Your task to perform on an android device: turn off javascript in the chrome app Image 0: 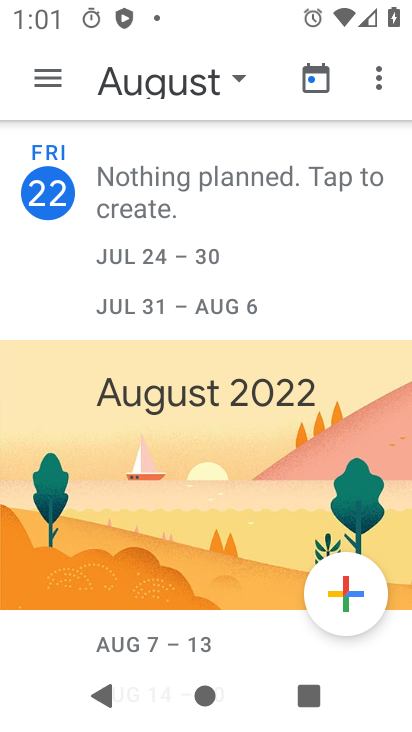
Step 0: press home button
Your task to perform on an android device: turn off javascript in the chrome app Image 1: 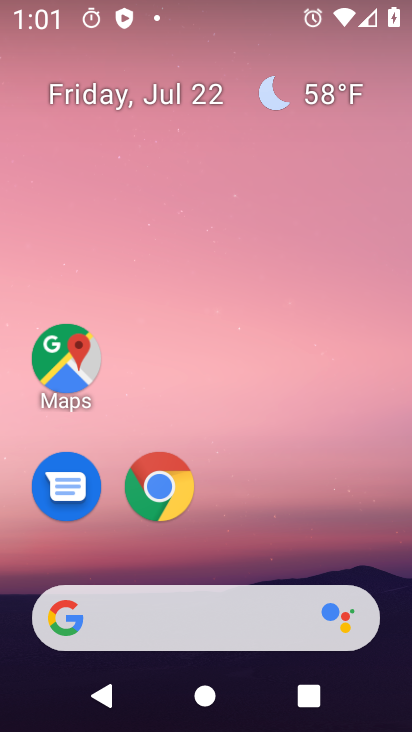
Step 1: drag from (353, 491) to (389, 196)
Your task to perform on an android device: turn off javascript in the chrome app Image 2: 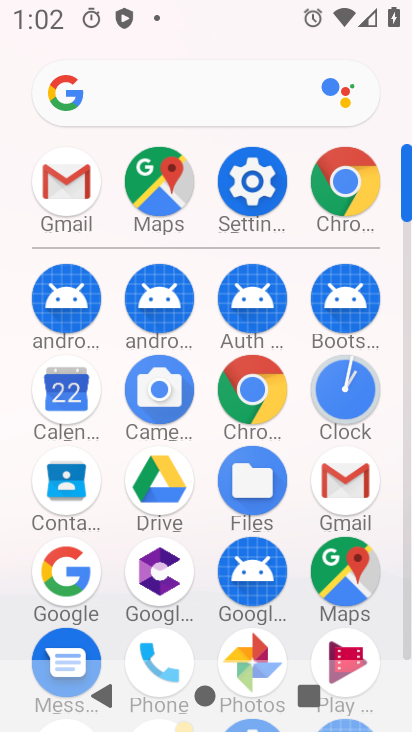
Step 2: click (394, 191)
Your task to perform on an android device: turn off javascript in the chrome app Image 3: 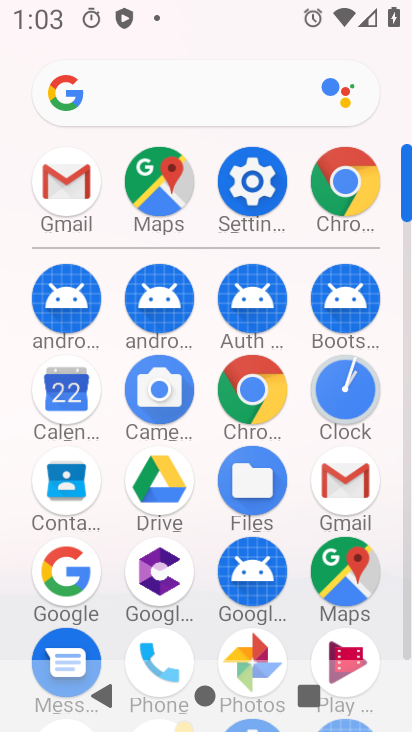
Step 3: click (244, 384)
Your task to perform on an android device: turn off javascript in the chrome app Image 4: 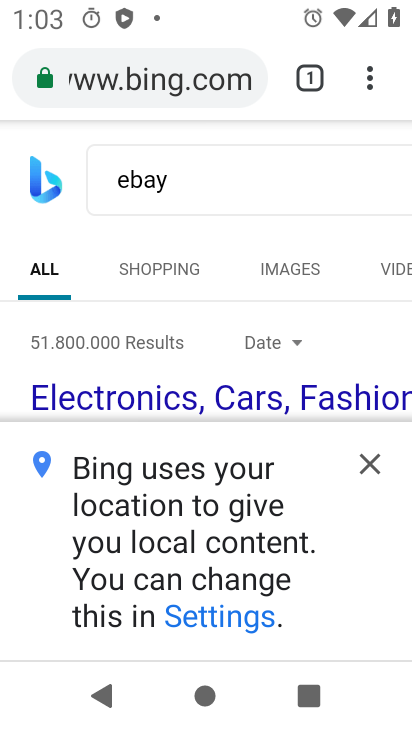
Step 4: click (369, 83)
Your task to perform on an android device: turn off javascript in the chrome app Image 5: 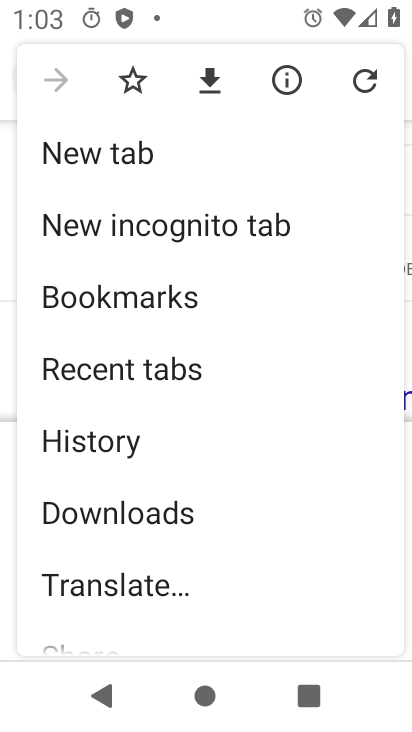
Step 5: drag from (324, 366) to (314, 278)
Your task to perform on an android device: turn off javascript in the chrome app Image 6: 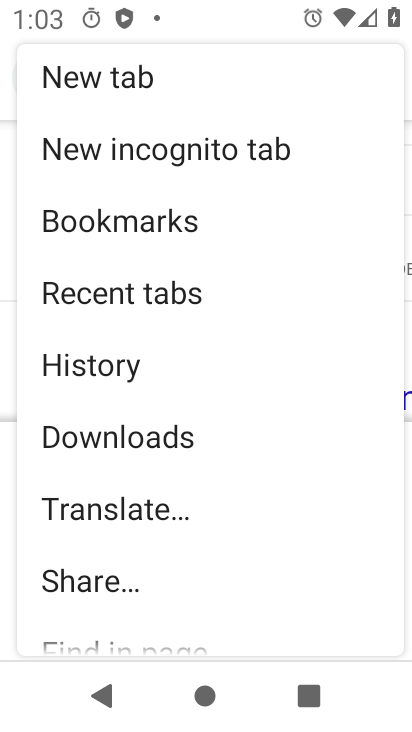
Step 6: drag from (282, 494) to (278, 359)
Your task to perform on an android device: turn off javascript in the chrome app Image 7: 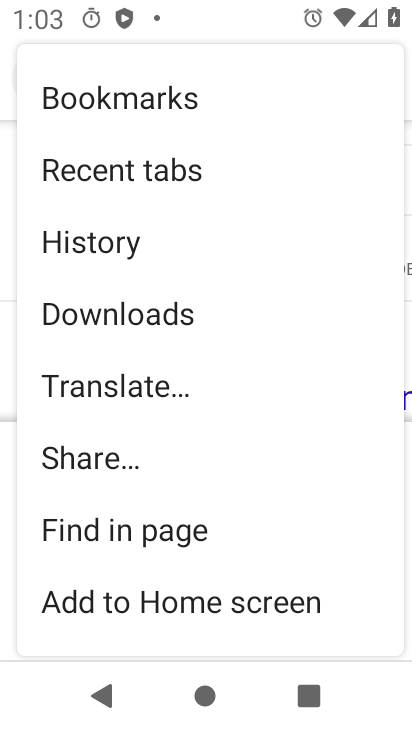
Step 7: drag from (275, 522) to (275, 363)
Your task to perform on an android device: turn off javascript in the chrome app Image 8: 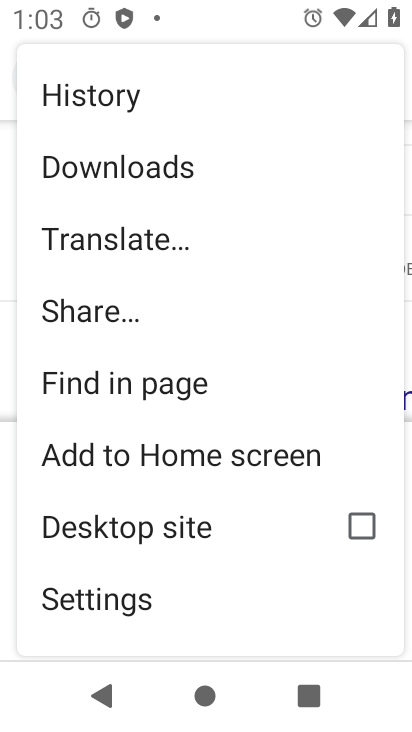
Step 8: click (244, 603)
Your task to perform on an android device: turn off javascript in the chrome app Image 9: 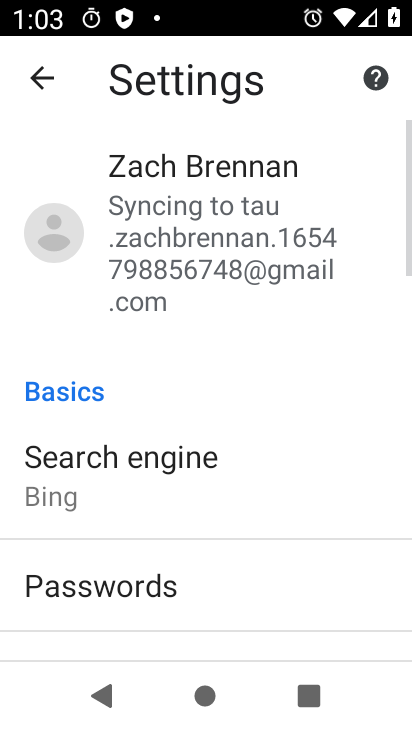
Step 9: drag from (246, 601) to (263, 509)
Your task to perform on an android device: turn off javascript in the chrome app Image 10: 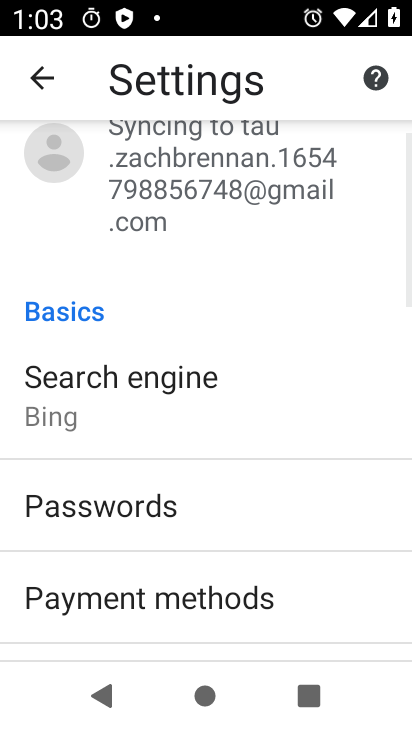
Step 10: drag from (257, 597) to (261, 465)
Your task to perform on an android device: turn off javascript in the chrome app Image 11: 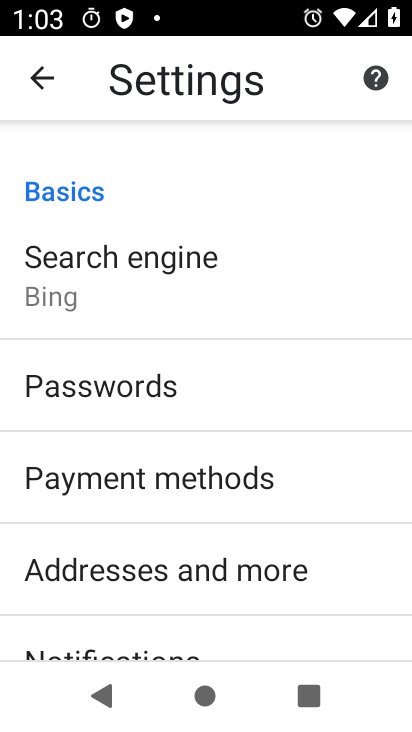
Step 11: drag from (252, 600) to (255, 476)
Your task to perform on an android device: turn off javascript in the chrome app Image 12: 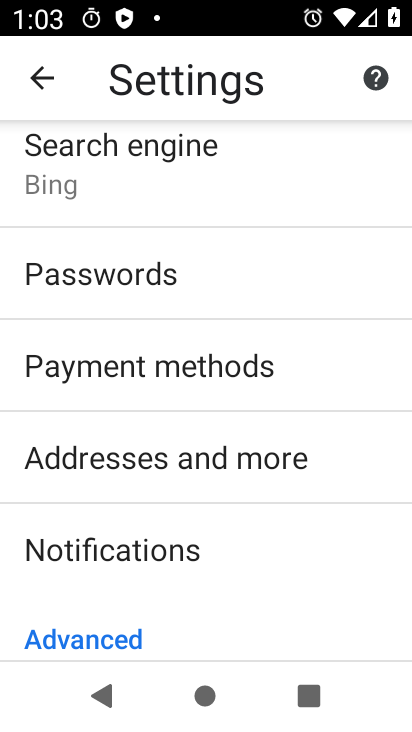
Step 12: drag from (261, 595) to (260, 486)
Your task to perform on an android device: turn off javascript in the chrome app Image 13: 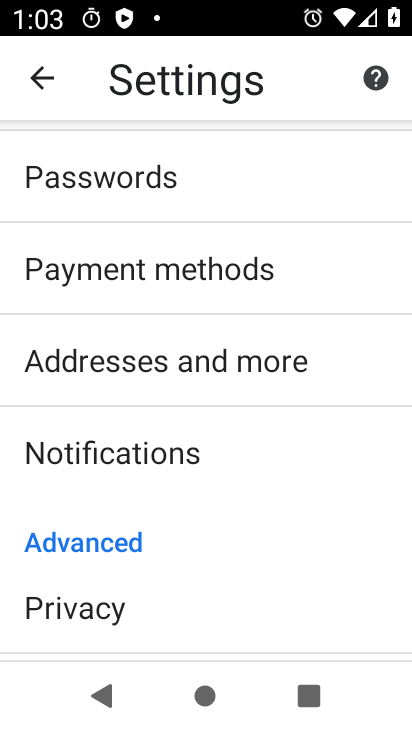
Step 13: drag from (231, 615) to (231, 484)
Your task to perform on an android device: turn off javascript in the chrome app Image 14: 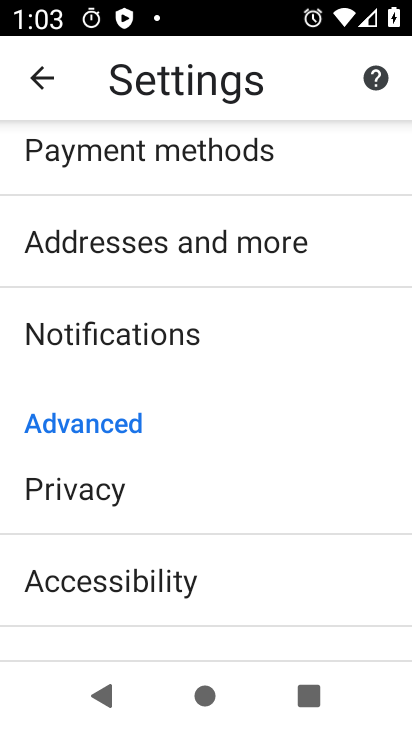
Step 14: drag from (228, 593) to (228, 445)
Your task to perform on an android device: turn off javascript in the chrome app Image 15: 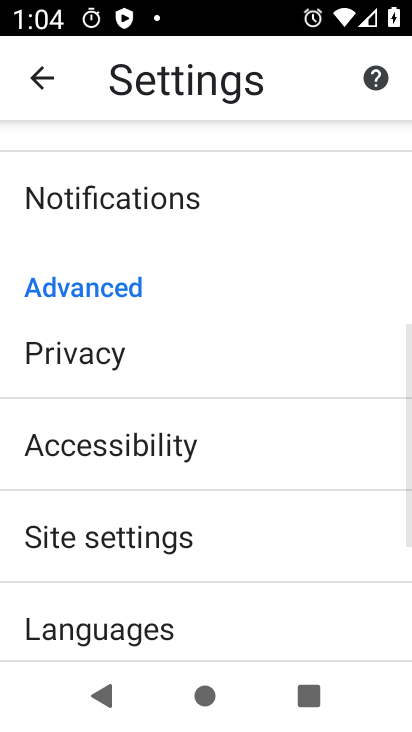
Step 15: click (219, 555)
Your task to perform on an android device: turn off javascript in the chrome app Image 16: 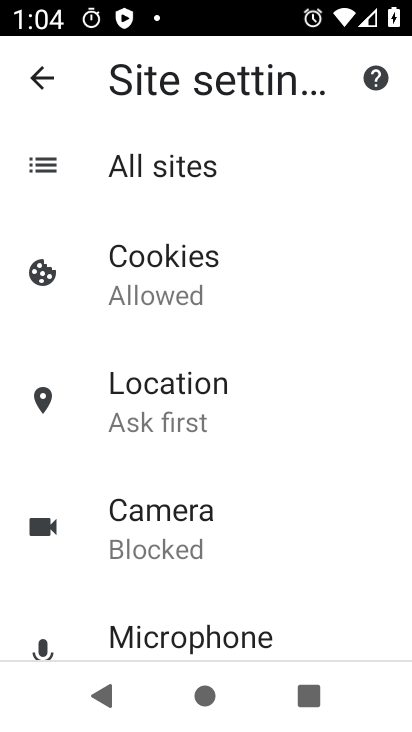
Step 16: drag from (248, 563) to (261, 449)
Your task to perform on an android device: turn off javascript in the chrome app Image 17: 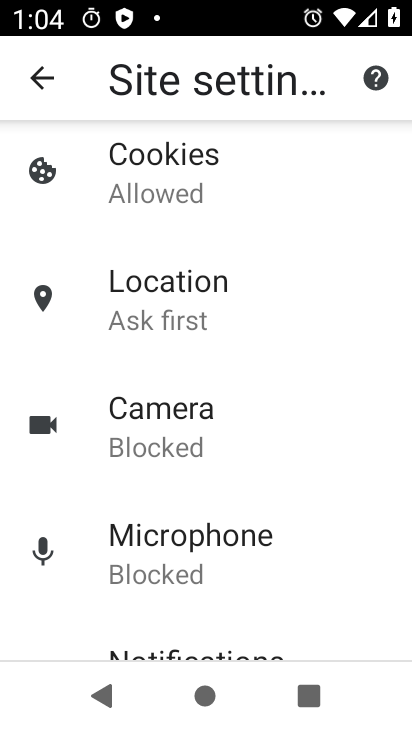
Step 17: drag from (261, 589) to (265, 432)
Your task to perform on an android device: turn off javascript in the chrome app Image 18: 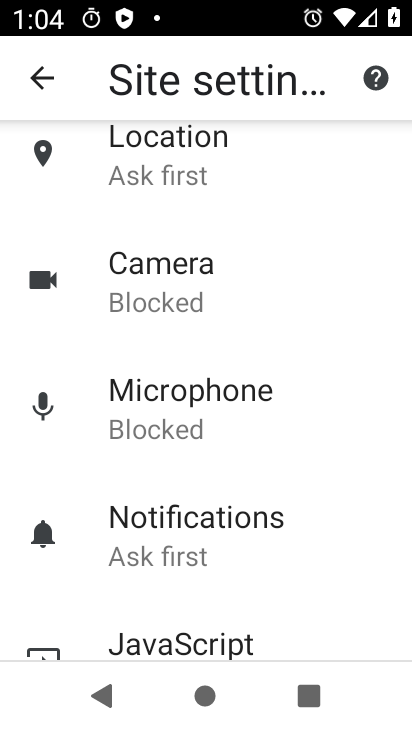
Step 18: drag from (257, 573) to (257, 420)
Your task to perform on an android device: turn off javascript in the chrome app Image 19: 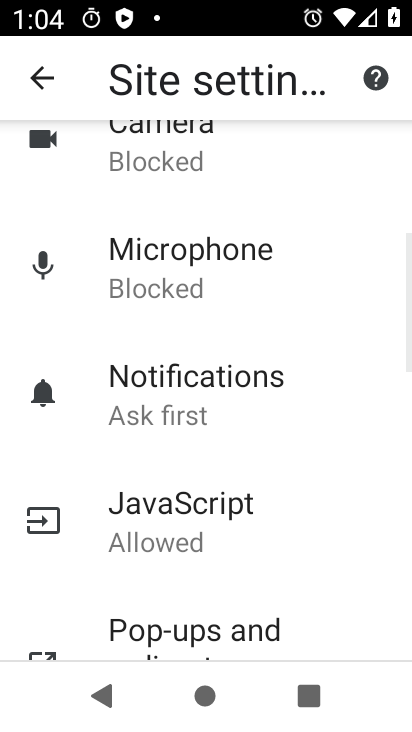
Step 19: click (247, 506)
Your task to perform on an android device: turn off javascript in the chrome app Image 20: 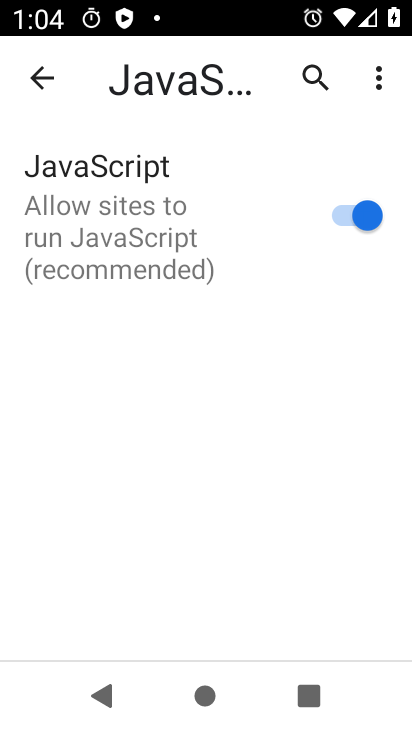
Step 20: click (358, 219)
Your task to perform on an android device: turn off javascript in the chrome app Image 21: 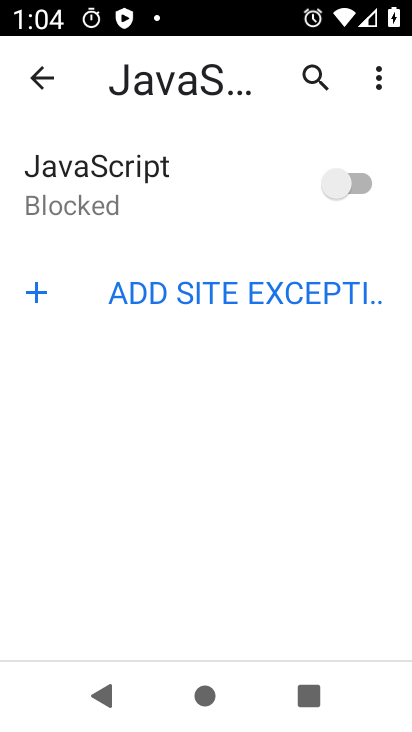
Step 21: task complete